Your task to perform on an android device: Open the calendar and show me this week's events? Image 0: 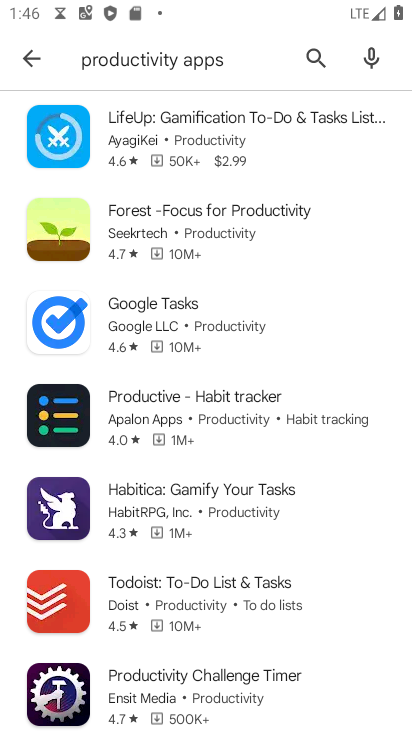
Step 0: press home button
Your task to perform on an android device: Open the calendar and show me this week's events? Image 1: 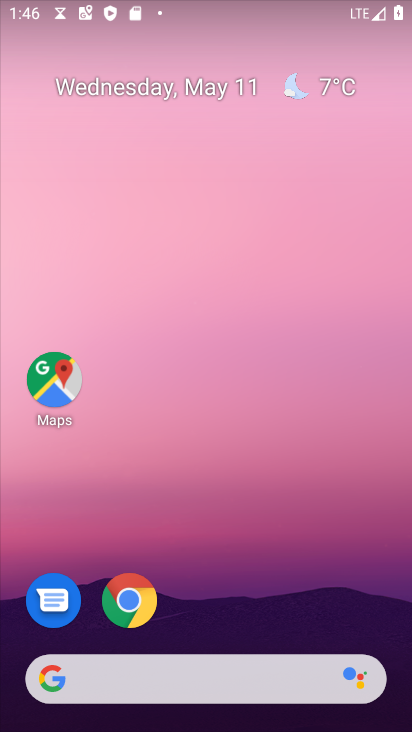
Step 1: drag from (276, 575) to (207, 67)
Your task to perform on an android device: Open the calendar and show me this week's events? Image 2: 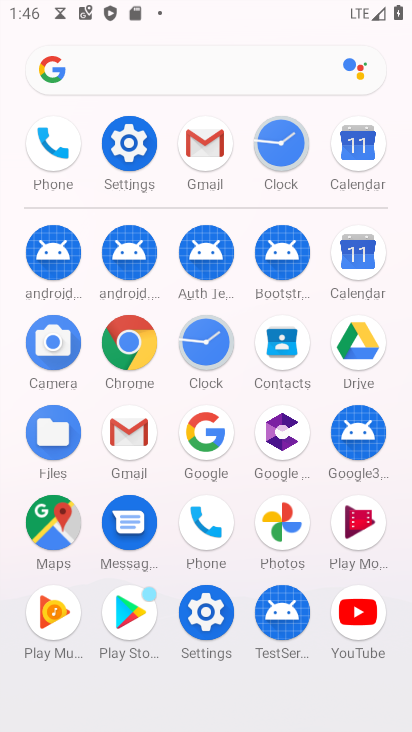
Step 2: click (354, 265)
Your task to perform on an android device: Open the calendar and show me this week's events? Image 3: 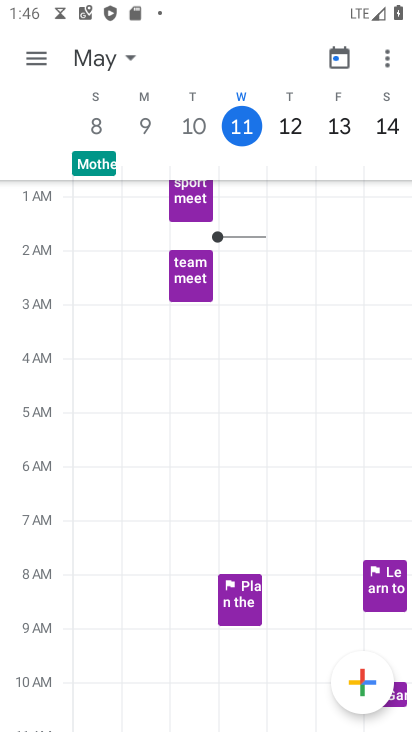
Step 3: task complete